Your task to perform on an android device: open chrome and create a bookmark for the current page Image 0: 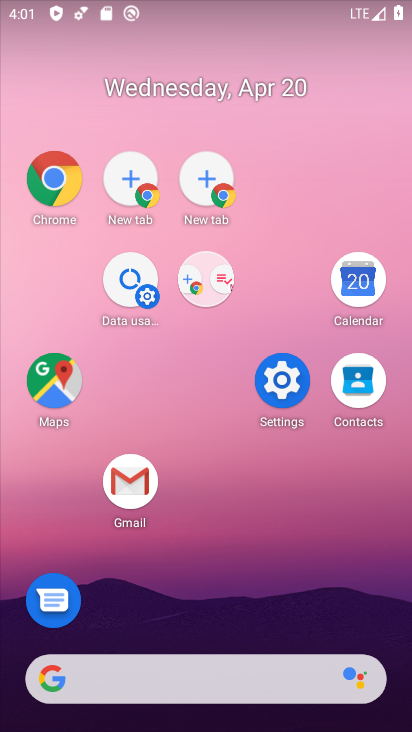
Step 0: drag from (215, 650) to (110, 187)
Your task to perform on an android device: open chrome and create a bookmark for the current page Image 1: 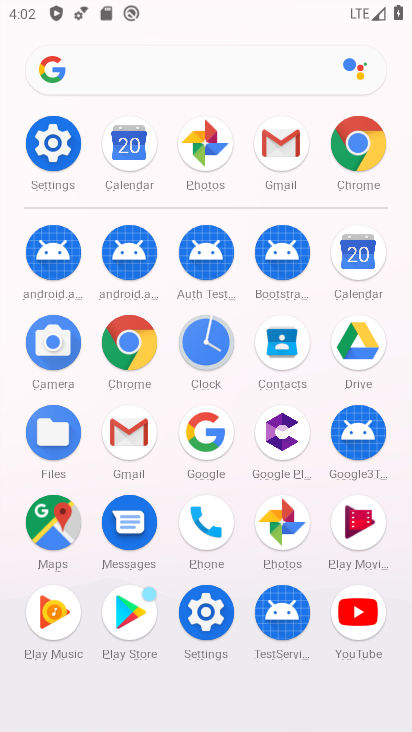
Step 1: click (357, 135)
Your task to perform on an android device: open chrome and create a bookmark for the current page Image 2: 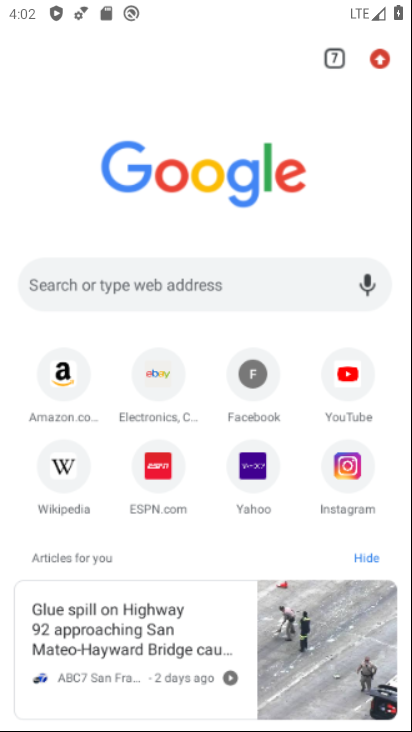
Step 2: click (357, 135)
Your task to perform on an android device: open chrome and create a bookmark for the current page Image 3: 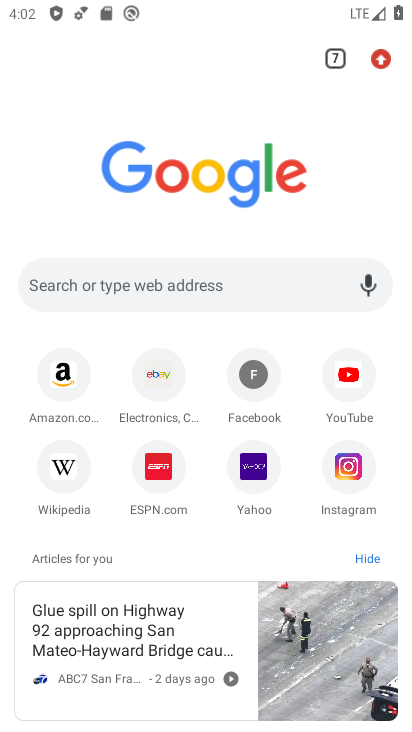
Step 3: drag from (380, 63) to (181, 292)
Your task to perform on an android device: open chrome and create a bookmark for the current page Image 4: 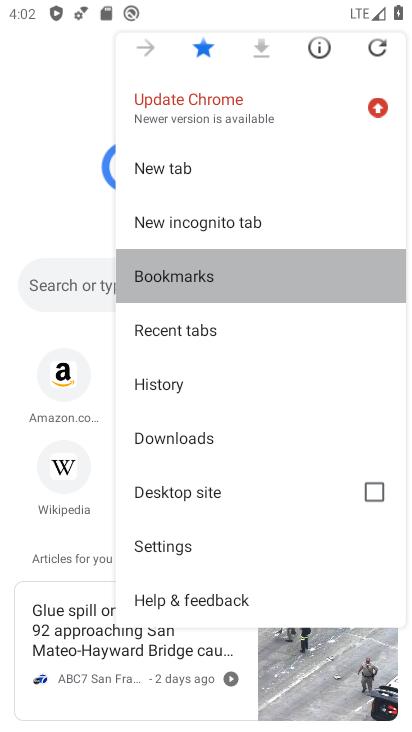
Step 4: click (181, 287)
Your task to perform on an android device: open chrome and create a bookmark for the current page Image 5: 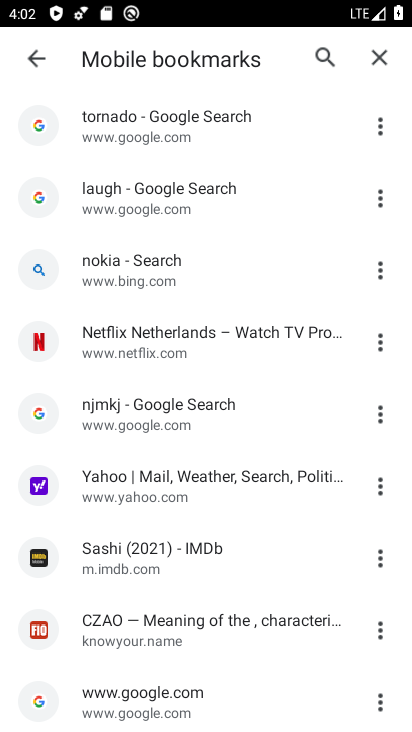
Step 5: click (181, 287)
Your task to perform on an android device: open chrome and create a bookmark for the current page Image 6: 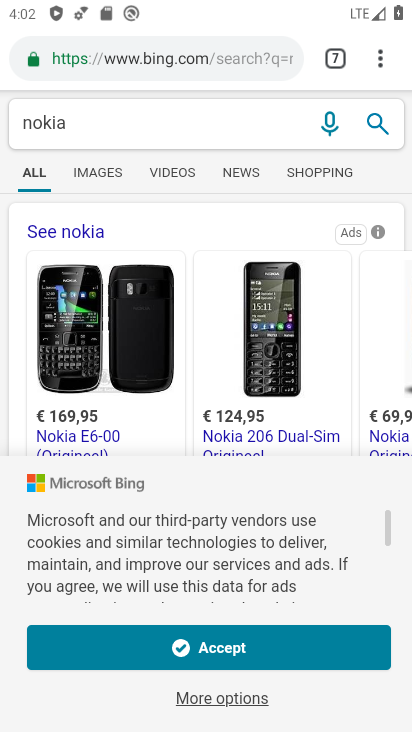
Step 6: click (381, 51)
Your task to perform on an android device: open chrome and create a bookmark for the current page Image 7: 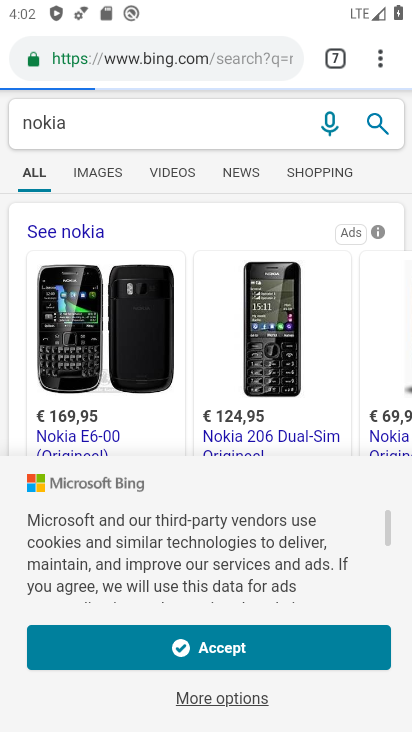
Step 7: drag from (381, 51) to (184, 294)
Your task to perform on an android device: open chrome and create a bookmark for the current page Image 8: 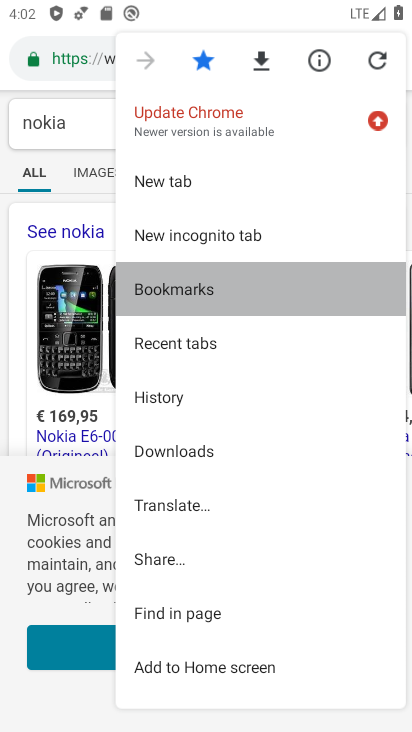
Step 8: click (185, 290)
Your task to perform on an android device: open chrome and create a bookmark for the current page Image 9: 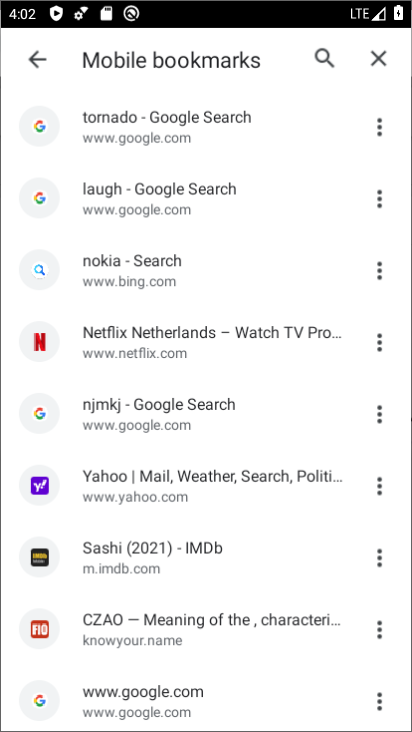
Step 9: click (185, 290)
Your task to perform on an android device: open chrome and create a bookmark for the current page Image 10: 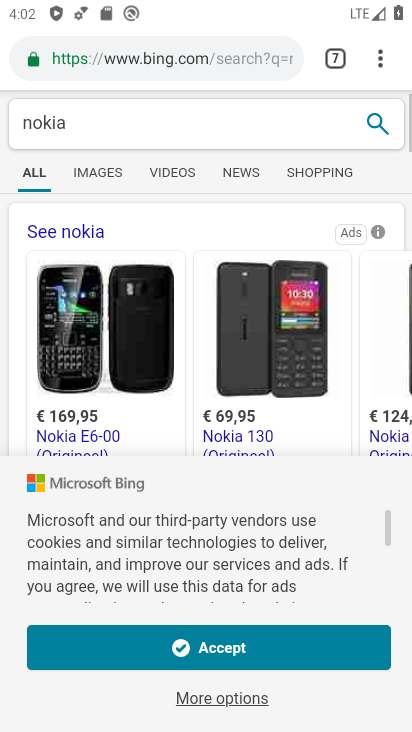
Step 10: task complete